Your task to perform on an android device: Open calendar and show me the first week of next month Image 0: 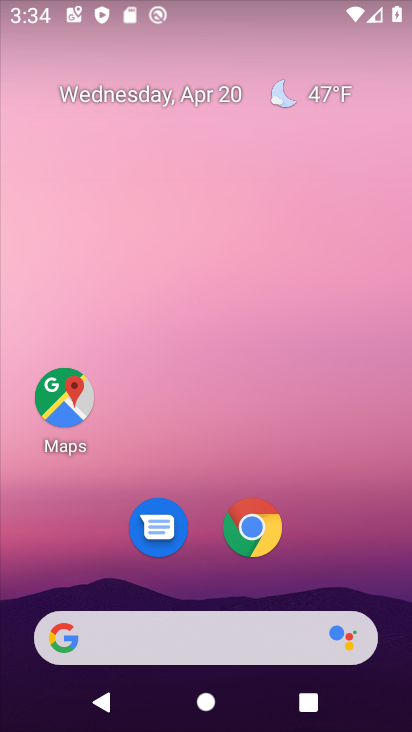
Step 0: drag from (347, 506) to (346, 141)
Your task to perform on an android device: Open calendar and show me the first week of next month Image 1: 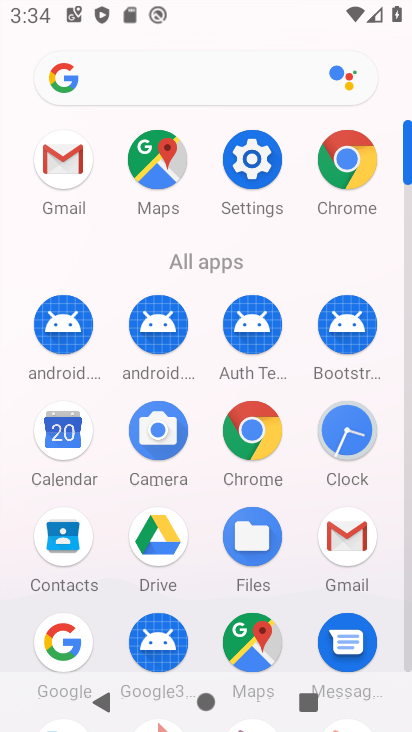
Step 1: click (67, 429)
Your task to perform on an android device: Open calendar and show me the first week of next month Image 2: 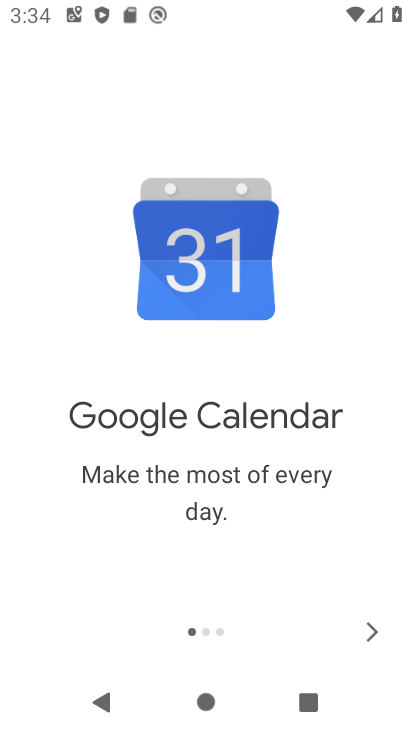
Step 2: click (361, 620)
Your task to perform on an android device: Open calendar and show me the first week of next month Image 3: 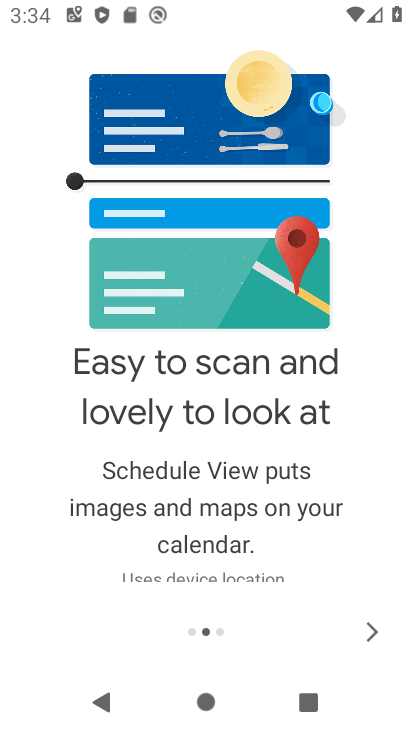
Step 3: click (366, 633)
Your task to perform on an android device: Open calendar and show me the first week of next month Image 4: 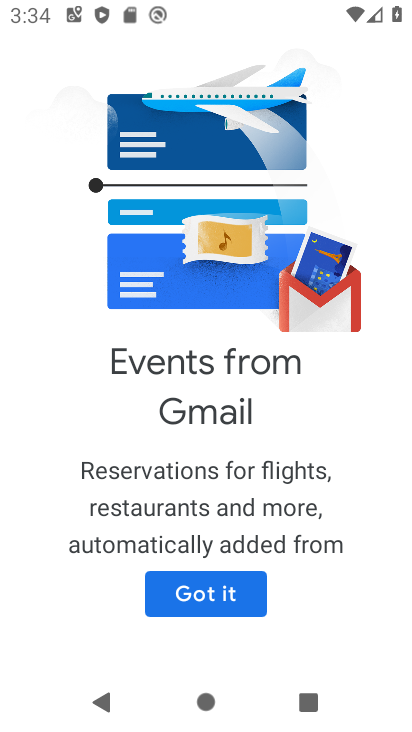
Step 4: click (249, 611)
Your task to perform on an android device: Open calendar and show me the first week of next month Image 5: 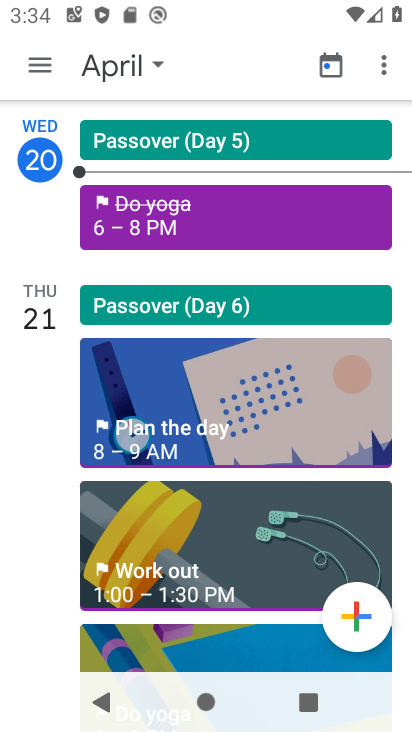
Step 5: click (136, 80)
Your task to perform on an android device: Open calendar and show me the first week of next month Image 6: 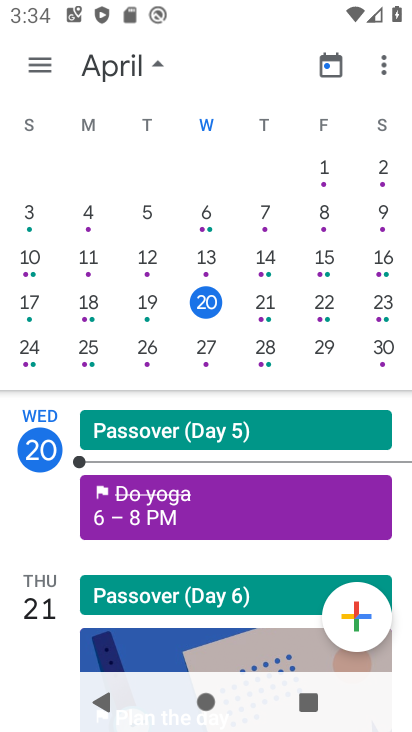
Step 6: drag from (326, 324) to (108, 271)
Your task to perform on an android device: Open calendar and show me the first week of next month Image 7: 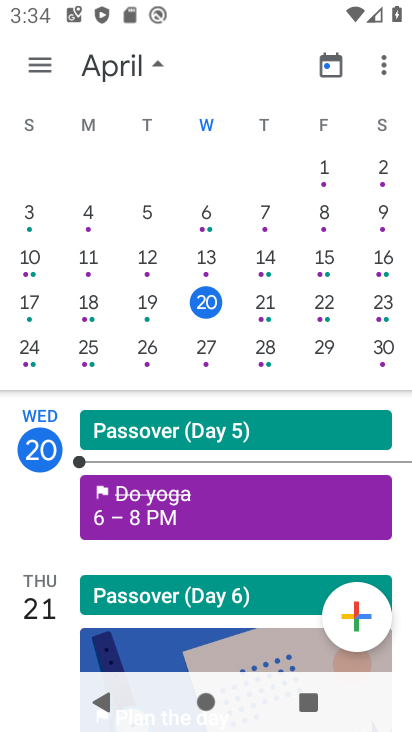
Step 7: drag from (298, 320) to (0, 287)
Your task to perform on an android device: Open calendar and show me the first week of next month Image 8: 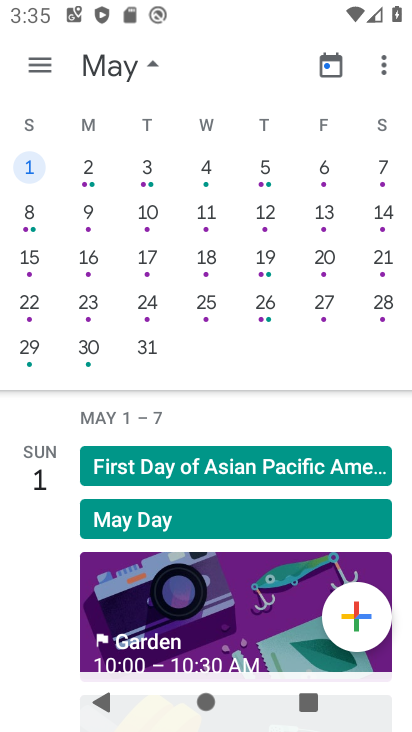
Step 8: click (28, 307)
Your task to perform on an android device: Open calendar and show me the first week of next month Image 9: 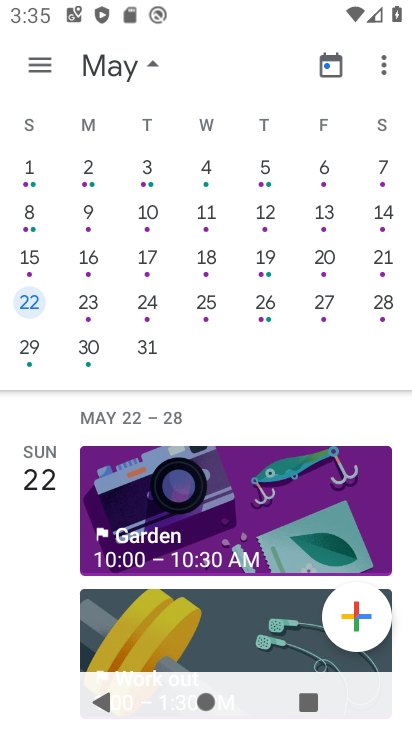
Step 9: click (93, 311)
Your task to perform on an android device: Open calendar and show me the first week of next month Image 10: 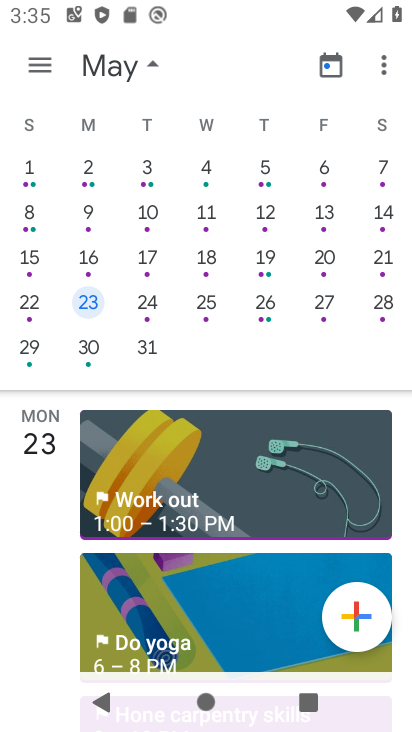
Step 10: click (139, 317)
Your task to perform on an android device: Open calendar and show me the first week of next month Image 11: 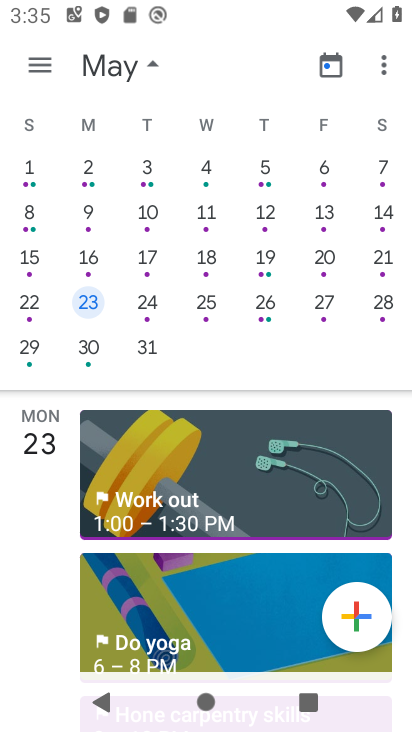
Step 11: click (199, 317)
Your task to perform on an android device: Open calendar and show me the first week of next month Image 12: 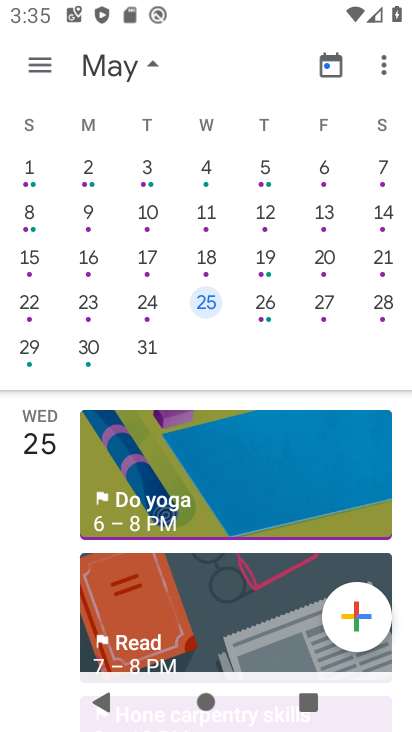
Step 12: click (279, 323)
Your task to perform on an android device: Open calendar and show me the first week of next month Image 13: 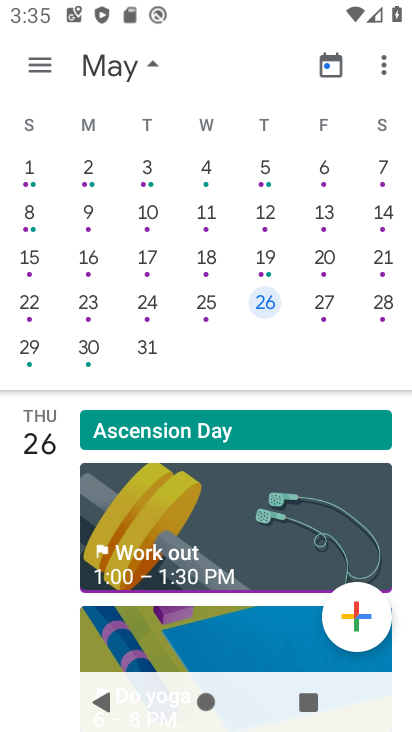
Step 13: click (325, 319)
Your task to perform on an android device: Open calendar and show me the first week of next month Image 14: 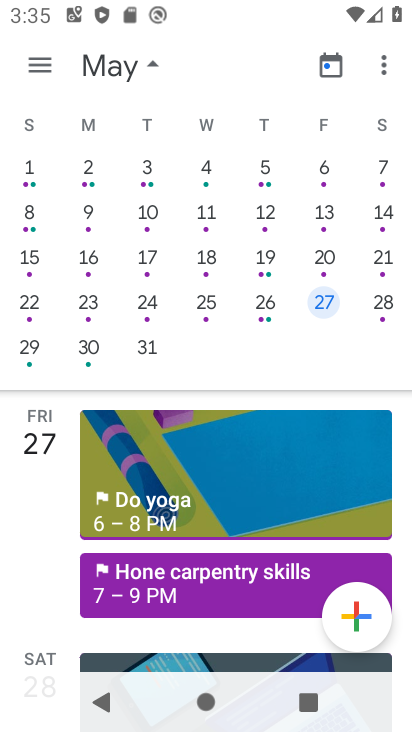
Step 14: click (396, 313)
Your task to perform on an android device: Open calendar and show me the first week of next month Image 15: 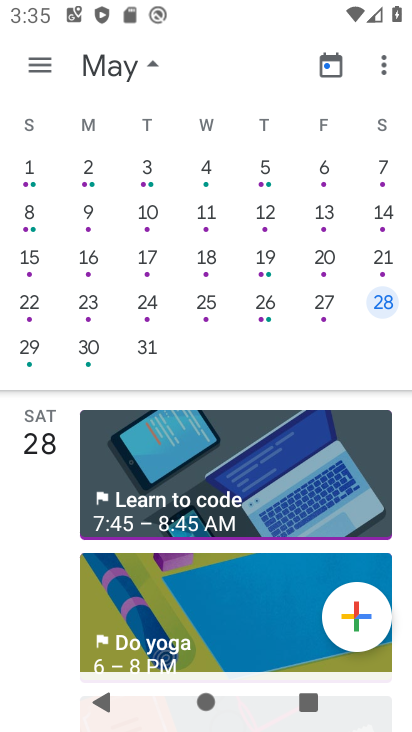
Step 15: task complete